Your task to perform on an android device: Go to Google Image 0: 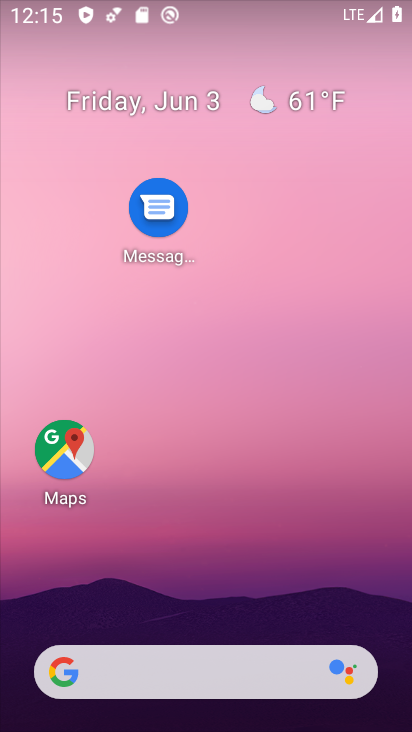
Step 0: drag from (197, 636) to (254, 62)
Your task to perform on an android device: Go to Google Image 1: 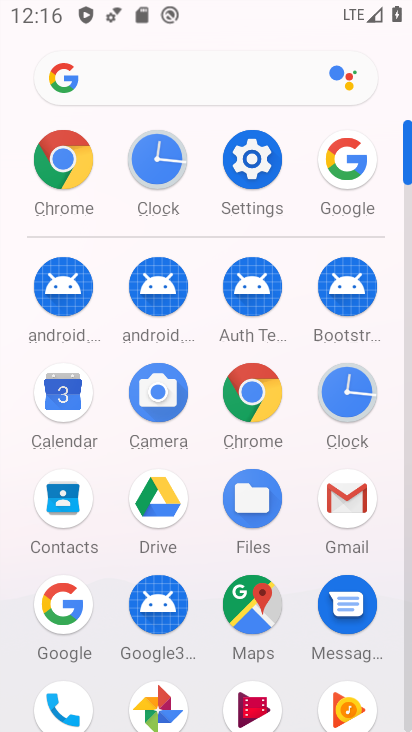
Step 1: click (72, 594)
Your task to perform on an android device: Go to Google Image 2: 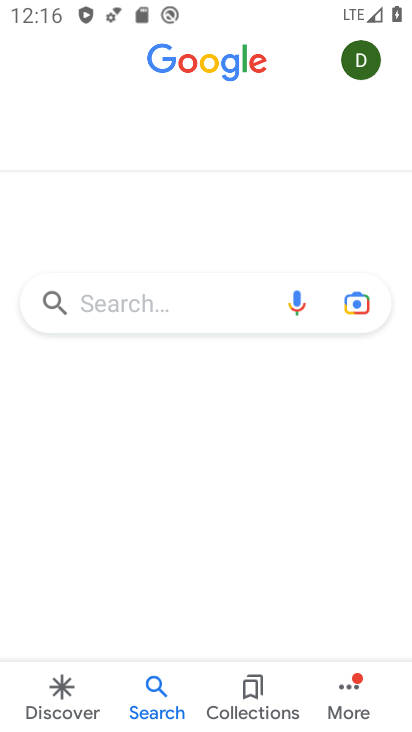
Step 2: task complete